Your task to perform on an android device: Open accessibility settings Image 0: 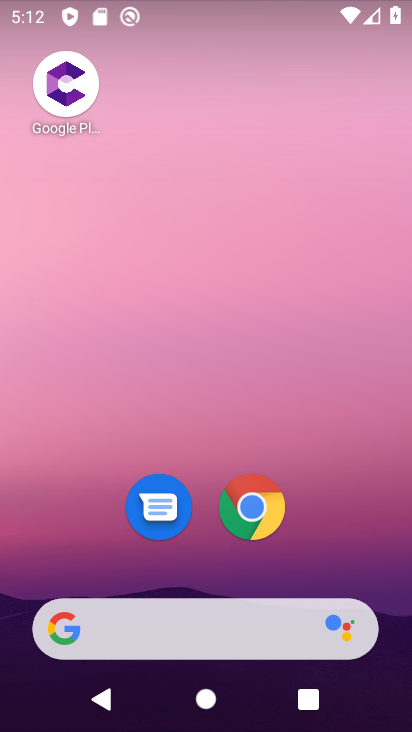
Step 0: click (276, 26)
Your task to perform on an android device: Open accessibility settings Image 1: 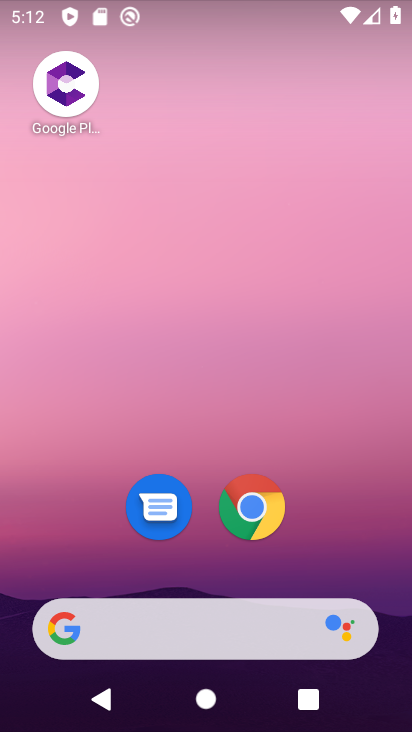
Step 1: drag from (357, 561) to (280, 43)
Your task to perform on an android device: Open accessibility settings Image 2: 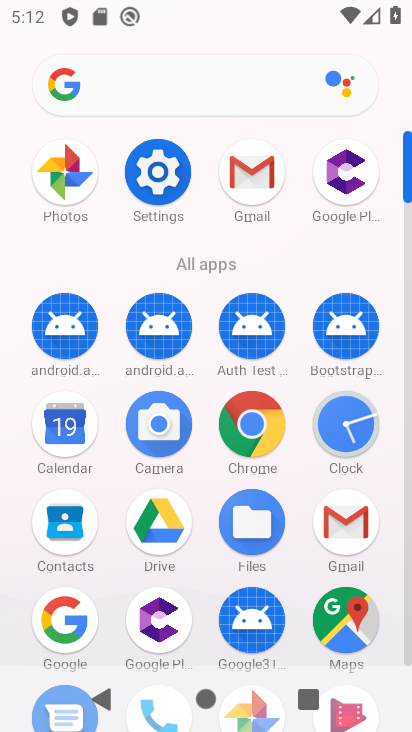
Step 2: click (165, 173)
Your task to perform on an android device: Open accessibility settings Image 3: 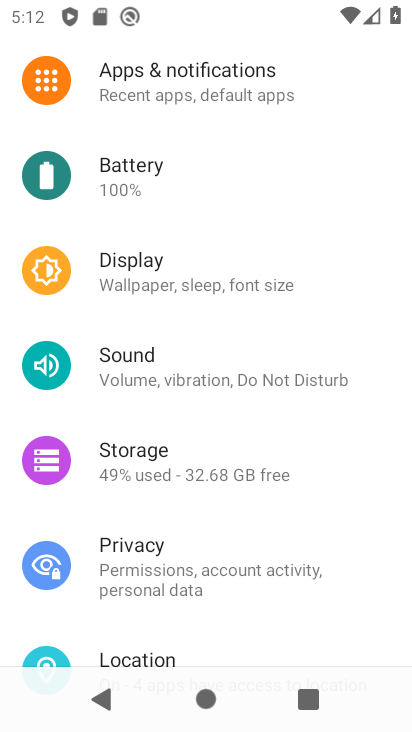
Step 3: drag from (277, 206) to (284, 24)
Your task to perform on an android device: Open accessibility settings Image 4: 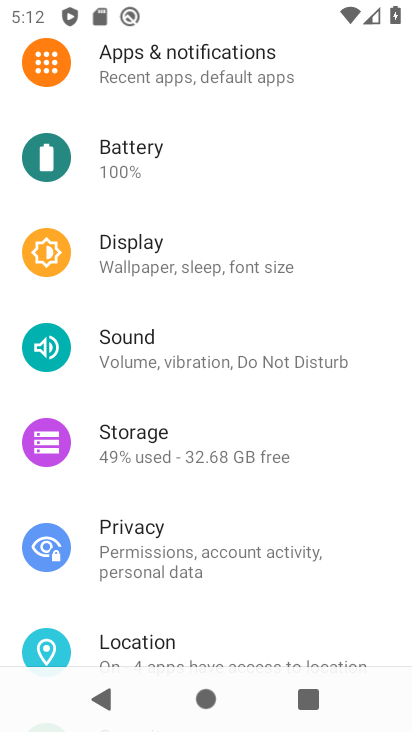
Step 4: drag from (228, 602) to (239, 188)
Your task to perform on an android device: Open accessibility settings Image 5: 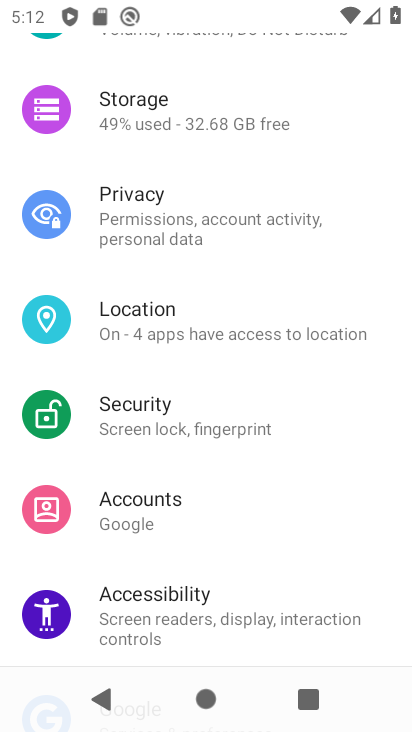
Step 5: click (189, 615)
Your task to perform on an android device: Open accessibility settings Image 6: 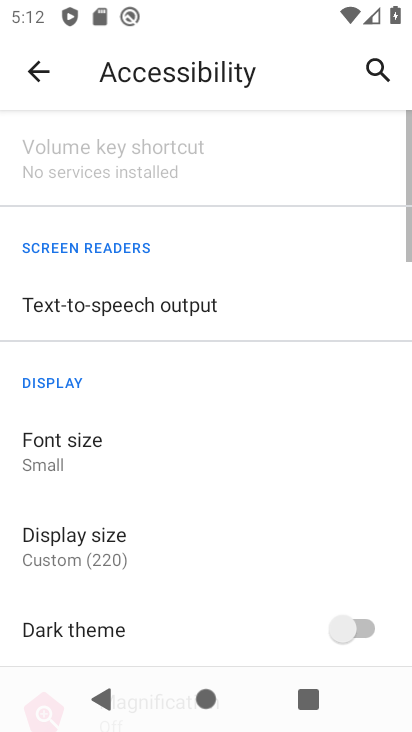
Step 6: task complete